Your task to perform on an android device: Show me popular videos on Youtube Image 0: 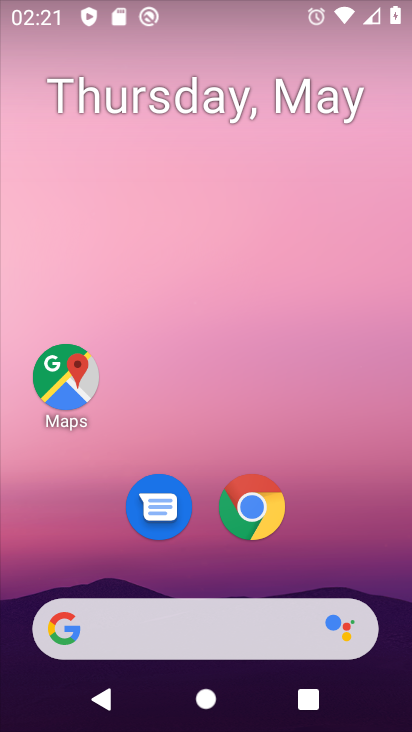
Step 0: drag from (382, 556) to (293, 112)
Your task to perform on an android device: Show me popular videos on Youtube Image 1: 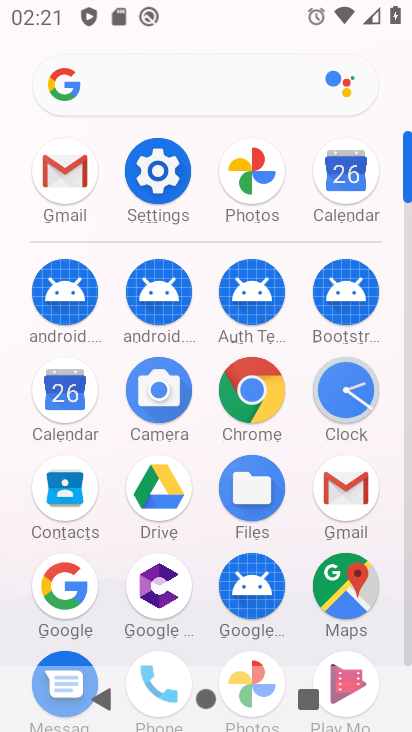
Step 1: click (409, 651)
Your task to perform on an android device: Show me popular videos on Youtube Image 2: 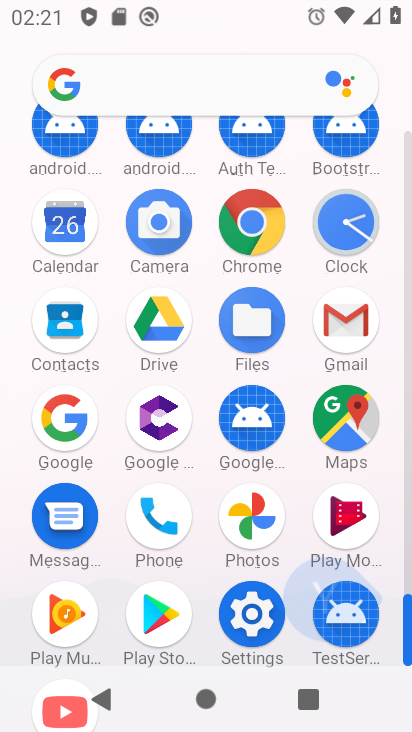
Step 2: click (409, 651)
Your task to perform on an android device: Show me popular videos on Youtube Image 3: 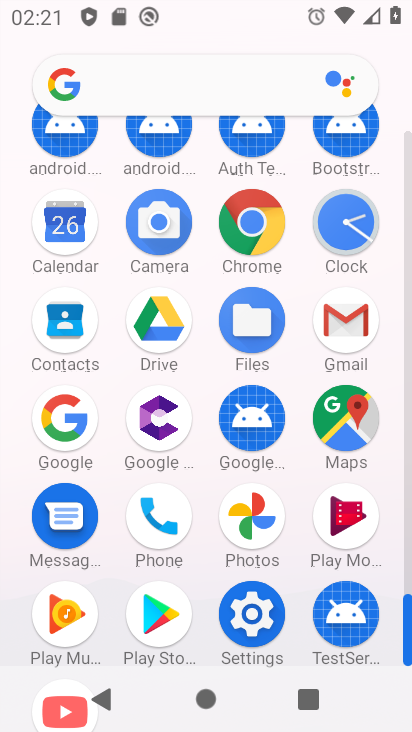
Step 3: drag from (406, 648) to (265, 729)
Your task to perform on an android device: Show me popular videos on Youtube Image 4: 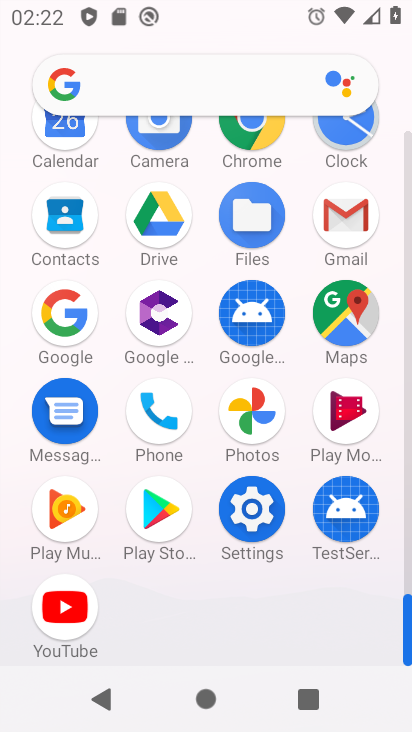
Step 4: click (47, 610)
Your task to perform on an android device: Show me popular videos on Youtube Image 5: 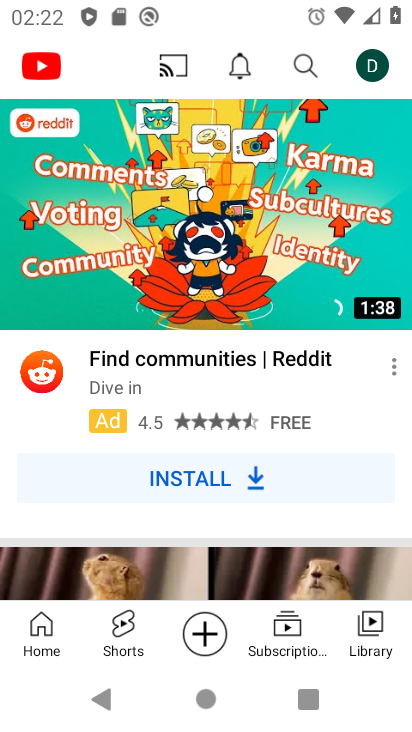
Step 5: task complete